Your task to perform on an android device: Go to network settings Image 0: 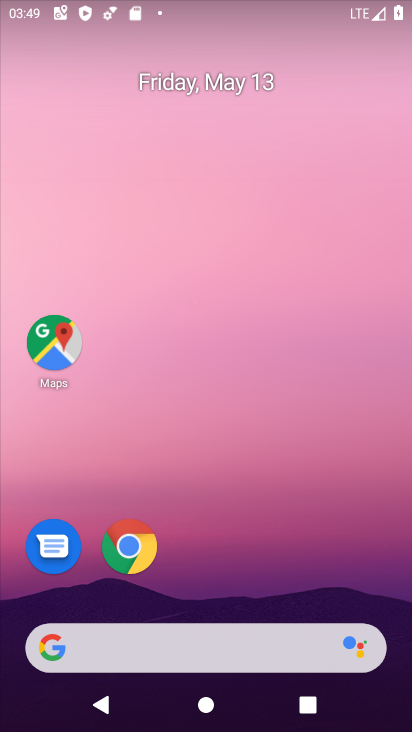
Step 0: drag from (285, 609) to (400, 461)
Your task to perform on an android device: Go to network settings Image 1: 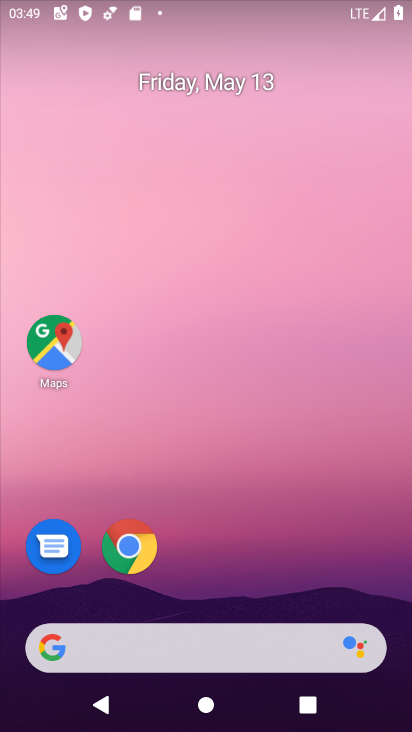
Step 1: drag from (268, 613) to (402, 27)
Your task to perform on an android device: Go to network settings Image 2: 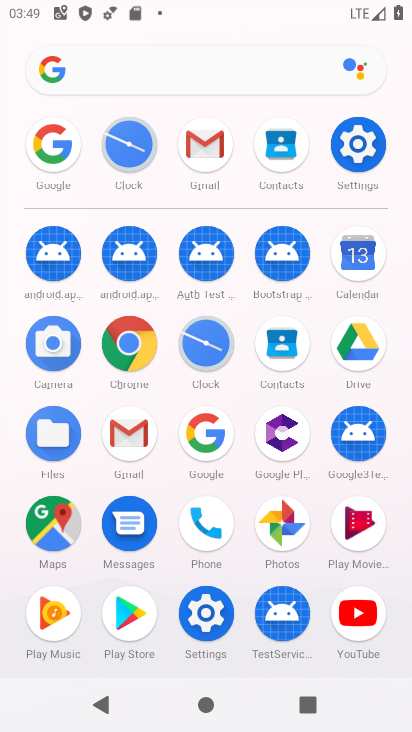
Step 2: click (354, 134)
Your task to perform on an android device: Go to network settings Image 3: 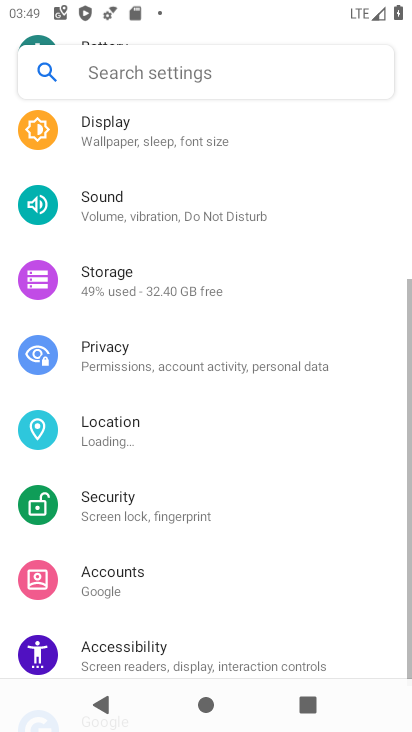
Step 3: click (354, 134)
Your task to perform on an android device: Go to network settings Image 4: 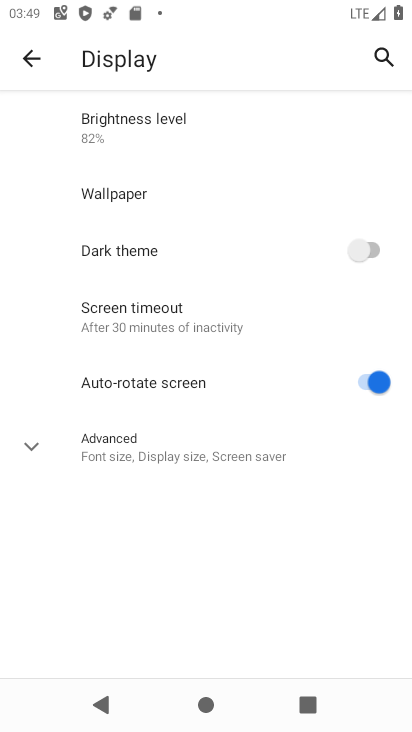
Step 4: click (34, 65)
Your task to perform on an android device: Go to network settings Image 5: 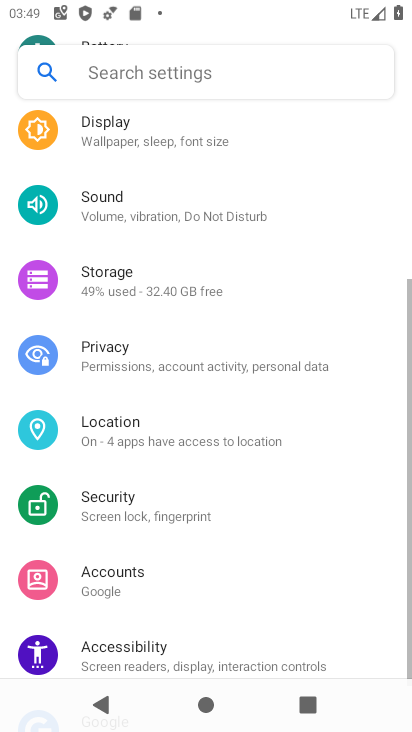
Step 5: drag from (161, 115) to (217, 499)
Your task to perform on an android device: Go to network settings Image 6: 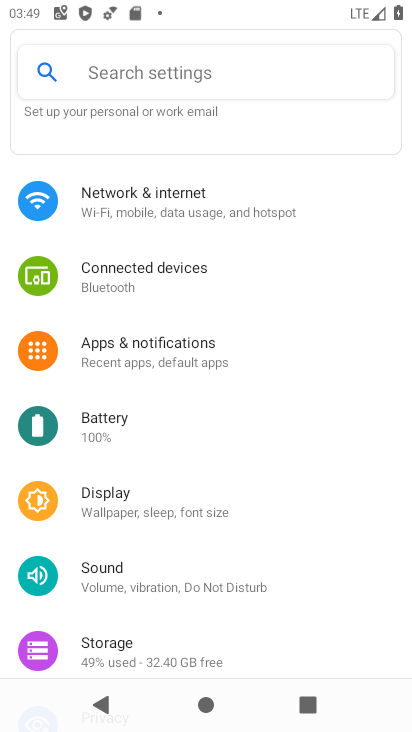
Step 6: click (172, 184)
Your task to perform on an android device: Go to network settings Image 7: 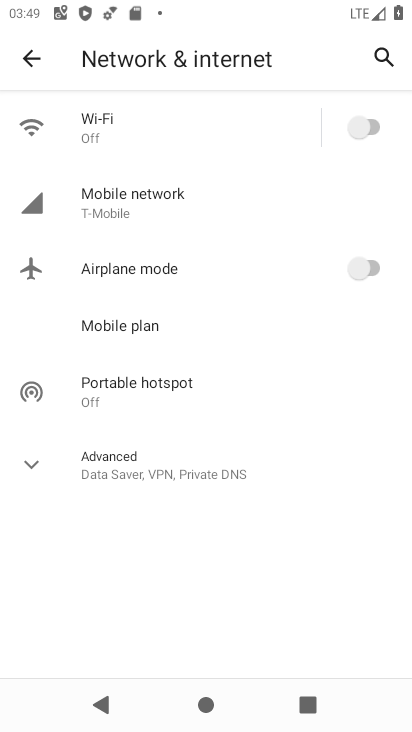
Step 7: task complete